Your task to perform on an android device: What's the weather going to be tomorrow? Image 0: 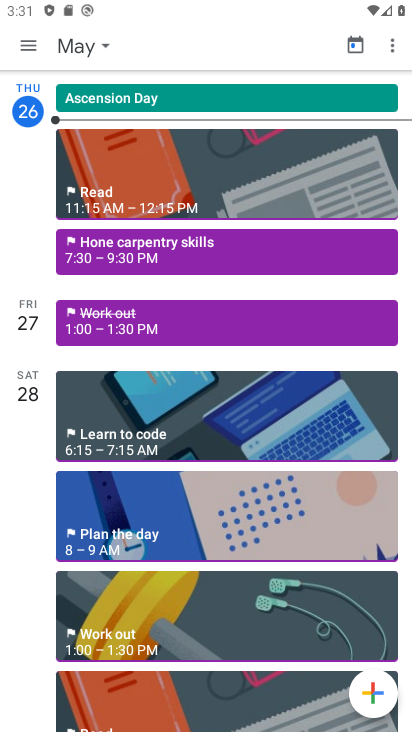
Step 0: press back button
Your task to perform on an android device: What's the weather going to be tomorrow? Image 1: 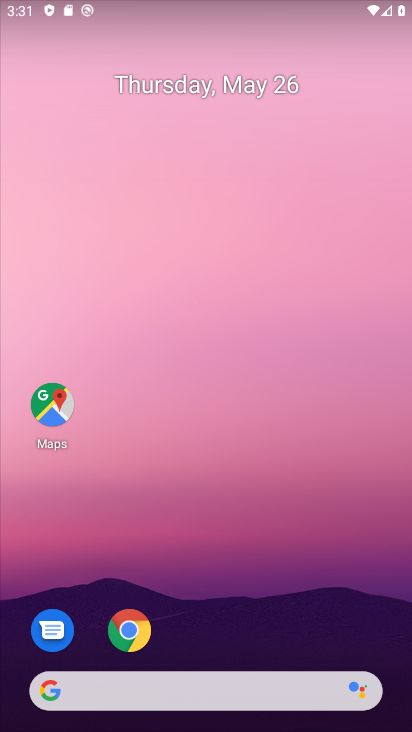
Step 1: drag from (270, 553) to (206, 271)
Your task to perform on an android device: What's the weather going to be tomorrow? Image 2: 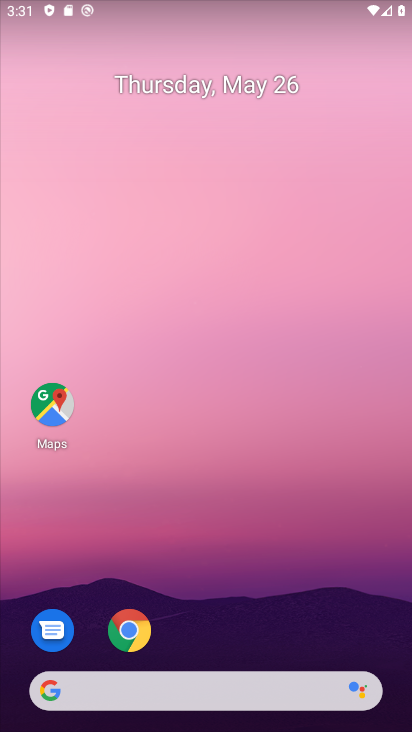
Step 2: drag from (255, 573) to (231, 134)
Your task to perform on an android device: What's the weather going to be tomorrow? Image 3: 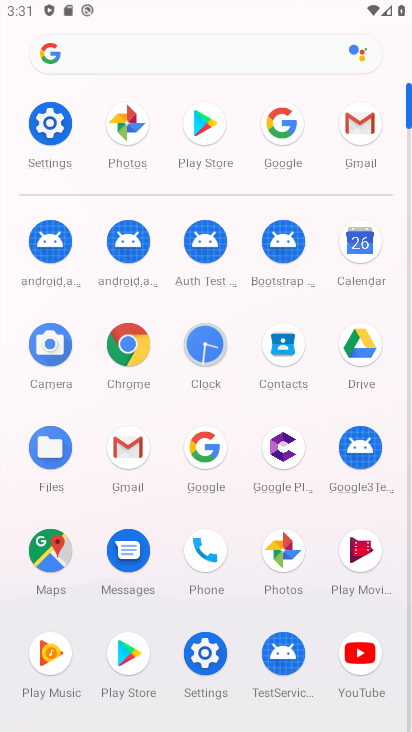
Step 3: click (279, 126)
Your task to perform on an android device: What's the weather going to be tomorrow? Image 4: 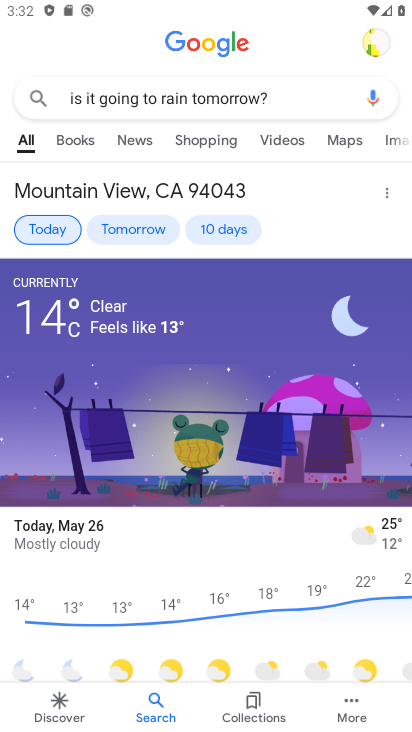
Step 4: click (137, 221)
Your task to perform on an android device: What's the weather going to be tomorrow? Image 5: 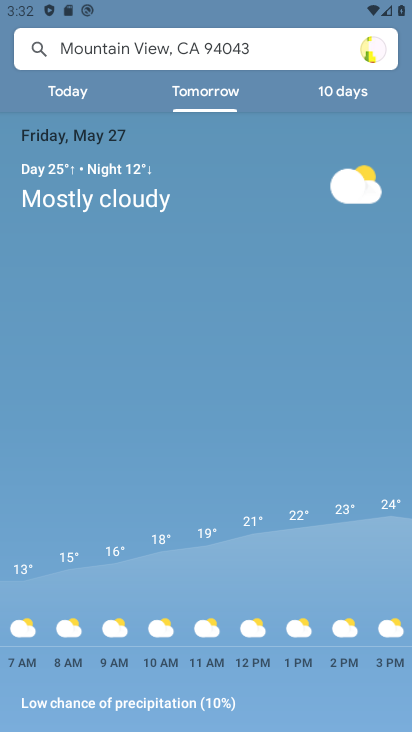
Step 5: task complete